Your task to perform on an android device: Open Wikipedia Image 0: 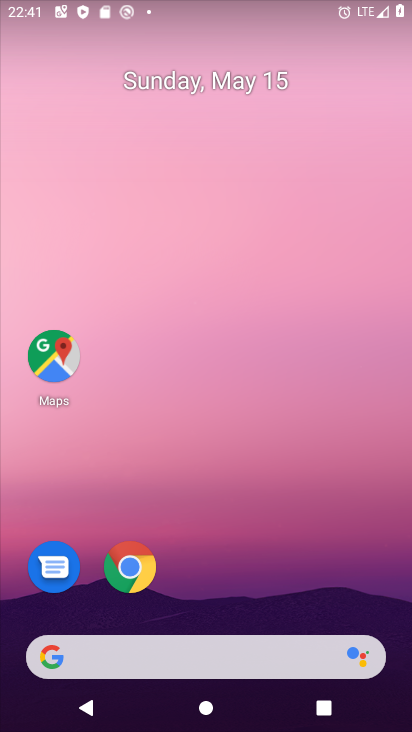
Step 0: click (211, 655)
Your task to perform on an android device: Open Wikipedia Image 1: 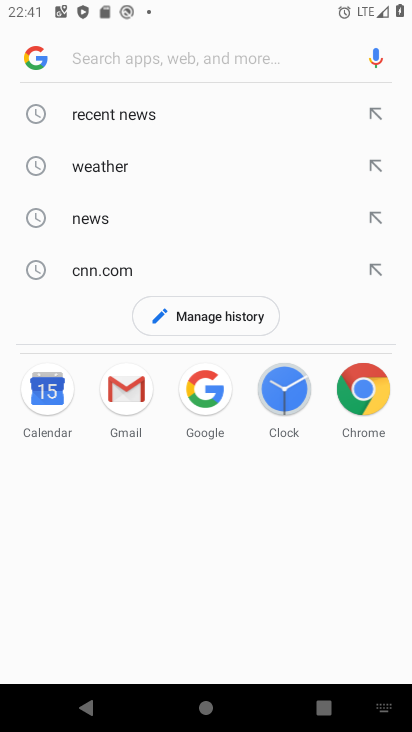
Step 1: type "wikipedia"
Your task to perform on an android device: Open Wikipedia Image 2: 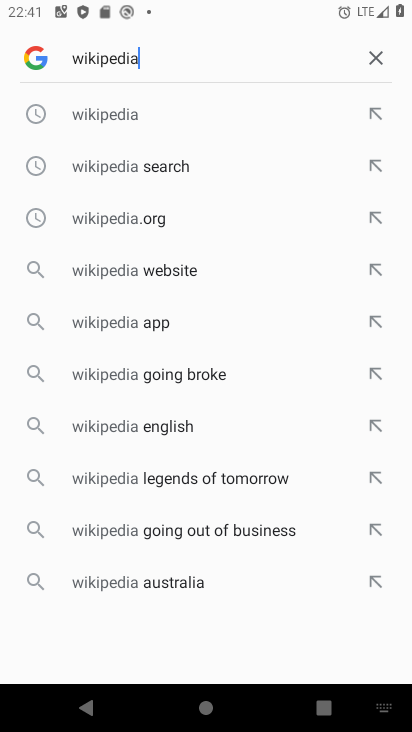
Step 2: click (75, 123)
Your task to perform on an android device: Open Wikipedia Image 3: 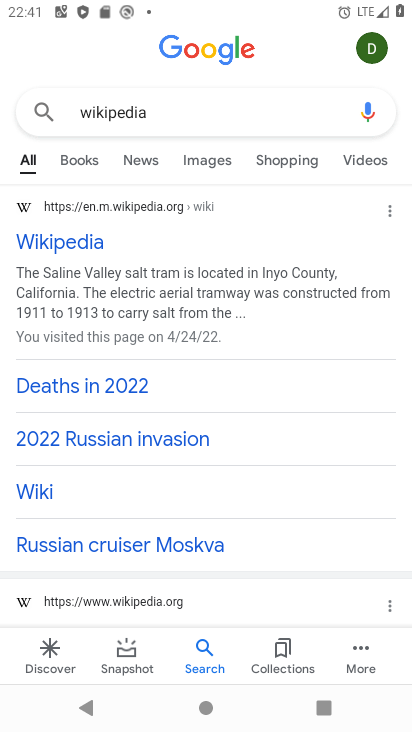
Step 3: task complete